Your task to perform on an android device: What's the weather? Image 0: 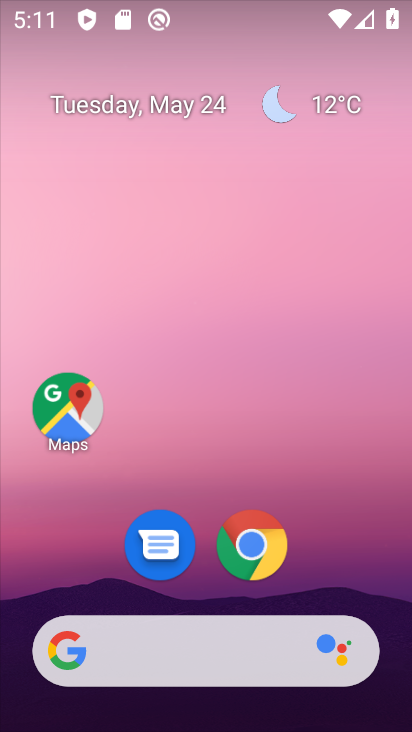
Step 0: drag from (217, 608) to (217, 230)
Your task to perform on an android device: What's the weather? Image 1: 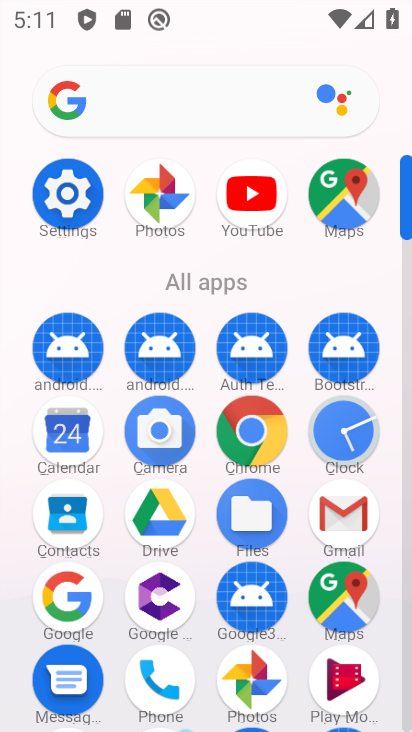
Step 1: click (13, 597)
Your task to perform on an android device: What's the weather? Image 2: 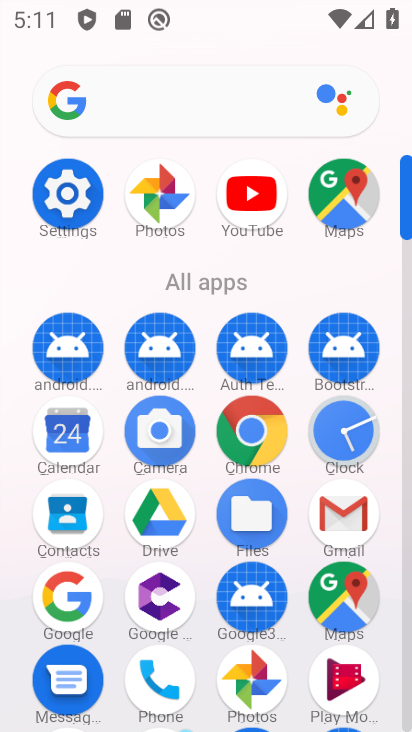
Step 2: click (49, 597)
Your task to perform on an android device: What's the weather? Image 3: 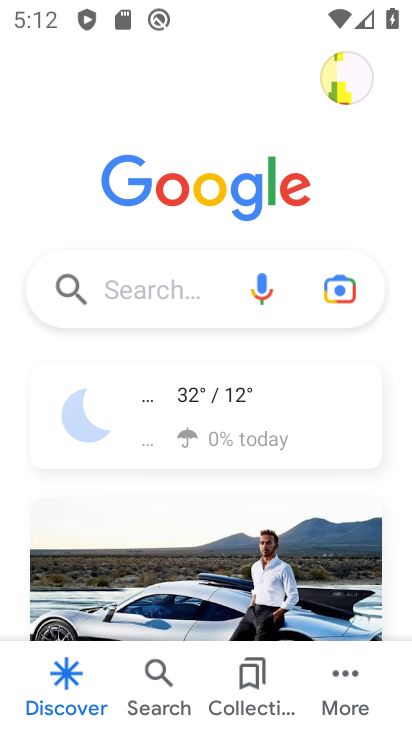
Step 3: click (181, 409)
Your task to perform on an android device: What's the weather? Image 4: 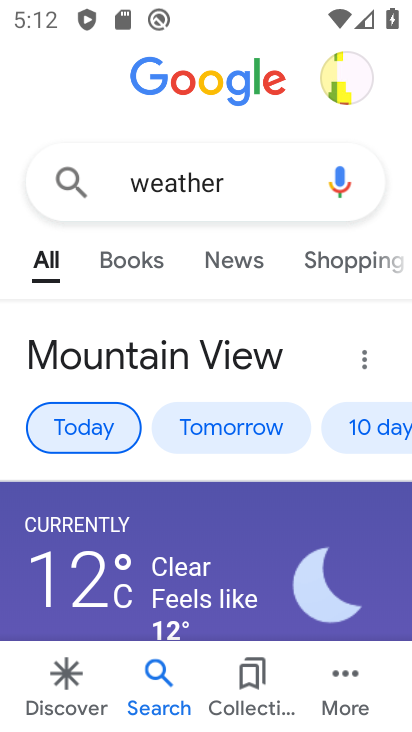
Step 4: task complete